Your task to perform on an android device: change the clock display to show seconds Image 0: 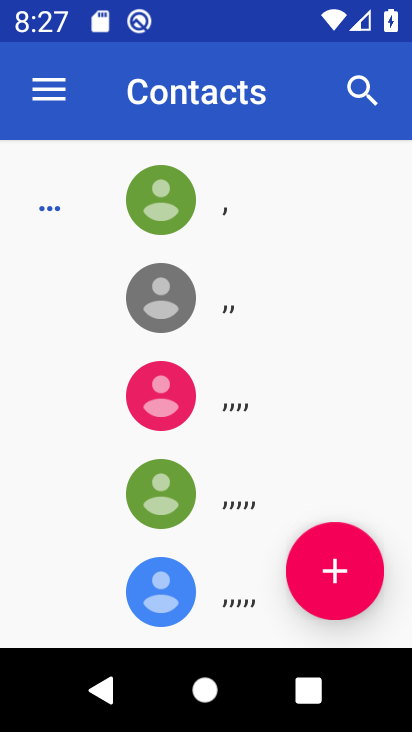
Step 0: press home button
Your task to perform on an android device: change the clock display to show seconds Image 1: 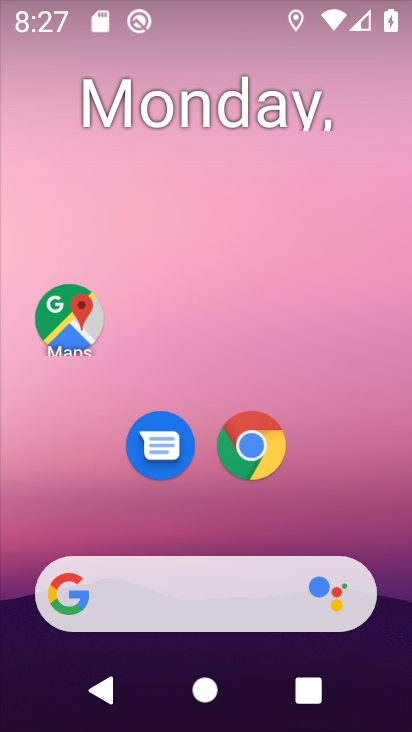
Step 1: drag from (199, 536) to (216, 37)
Your task to perform on an android device: change the clock display to show seconds Image 2: 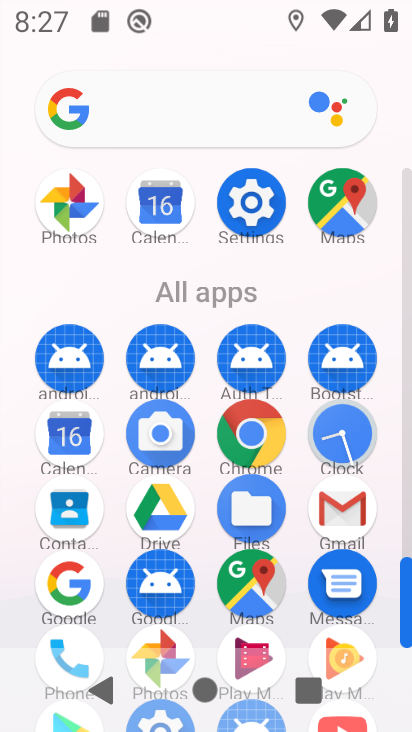
Step 2: click (335, 431)
Your task to perform on an android device: change the clock display to show seconds Image 3: 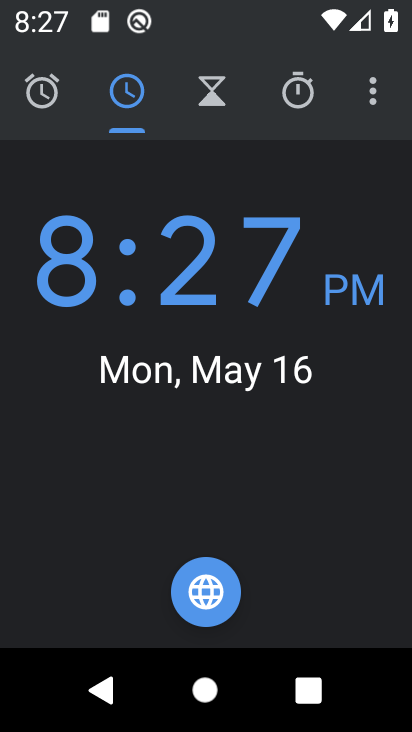
Step 3: click (380, 78)
Your task to perform on an android device: change the clock display to show seconds Image 4: 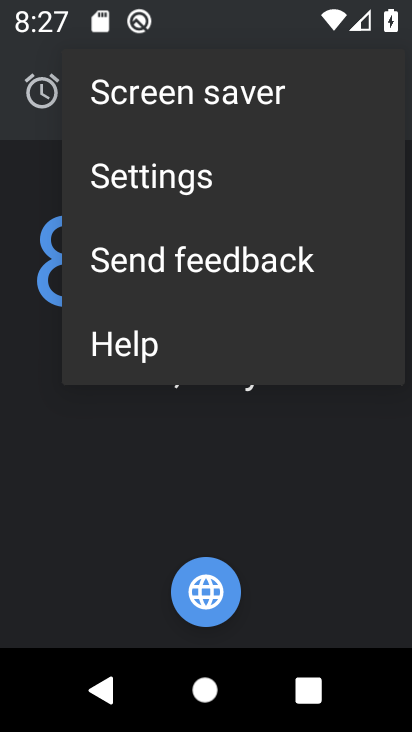
Step 4: click (212, 177)
Your task to perform on an android device: change the clock display to show seconds Image 5: 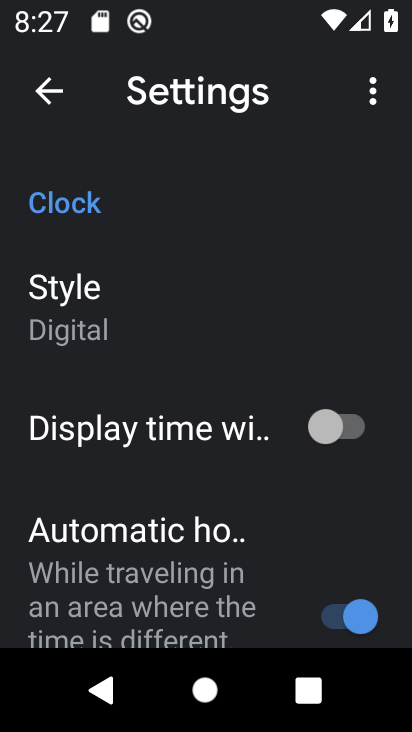
Step 5: click (336, 424)
Your task to perform on an android device: change the clock display to show seconds Image 6: 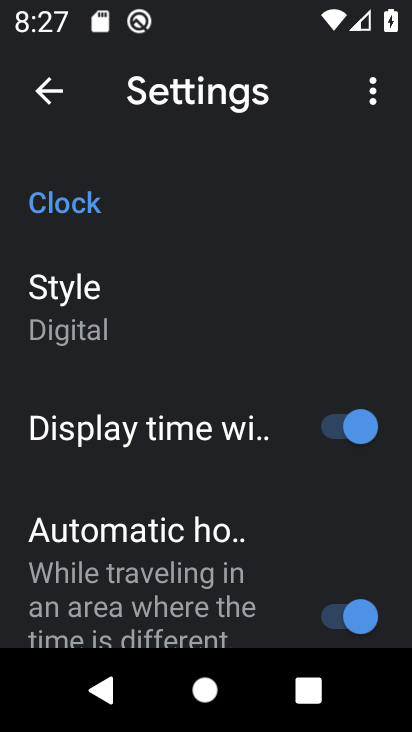
Step 6: task complete